Your task to perform on an android device: turn off location history Image 0: 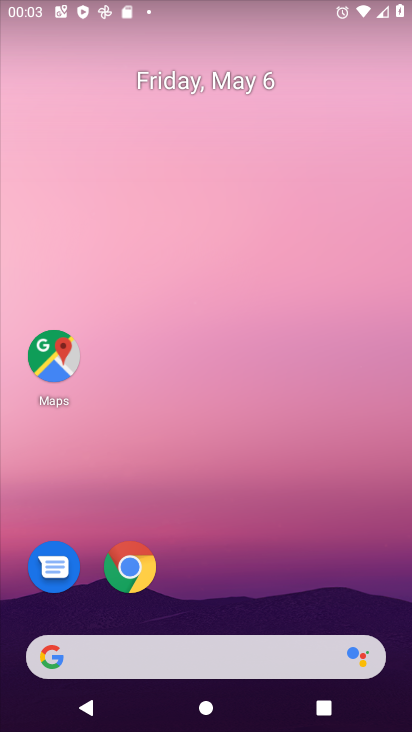
Step 0: drag from (221, 588) to (181, 106)
Your task to perform on an android device: turn off location history Image 1: 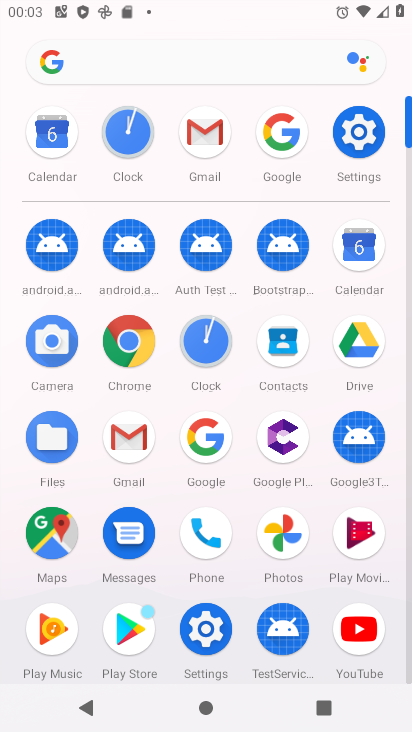
Step 1: click (337, 129)
Your task to perform on an android device: turn off location history Image 2: 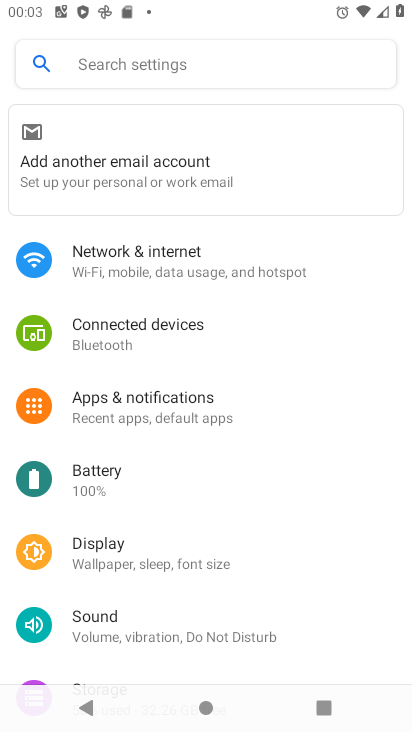
Step 2: drag from (203, 605) to (210, 291)
Your task to perform on an android device: turn off location history Image 3: 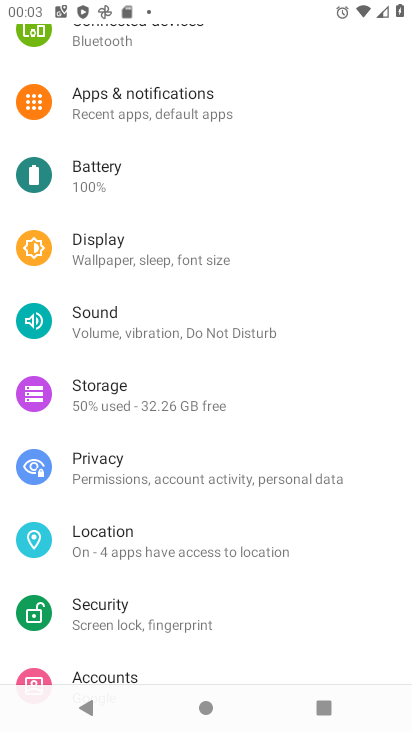
Step 3: click (167, 535)
Your task to perform on an android device: turn off location history Image 4: 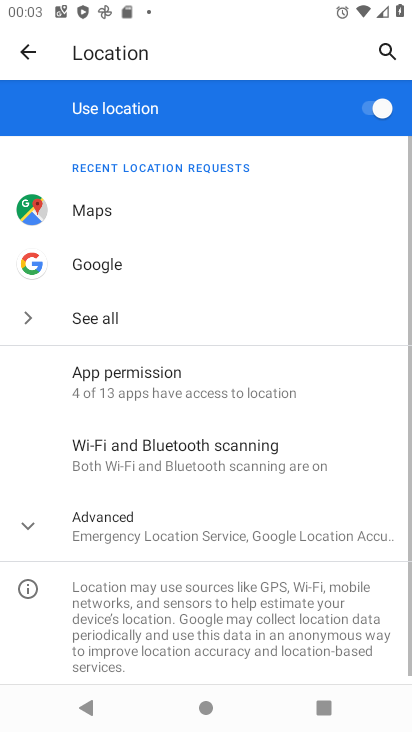
Step 4: click (190, 518)
Your task to perform on an android device: turn off location history Image 5: 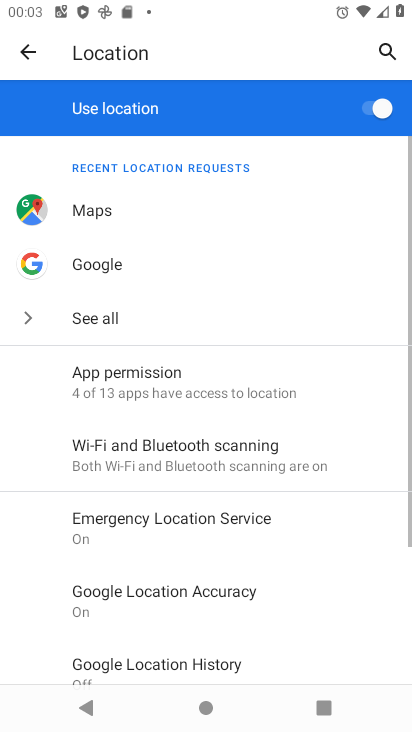
Step 5: drag from (226, 575) to (228, 401)
Your task to perform on an android device: turn off location history Image 6: 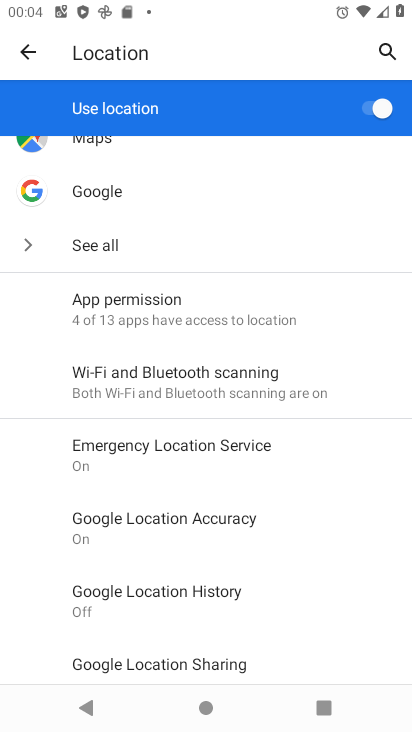
Step 6: click (365, 111)
Your task to perform on an android device: turn off location history Image 7: 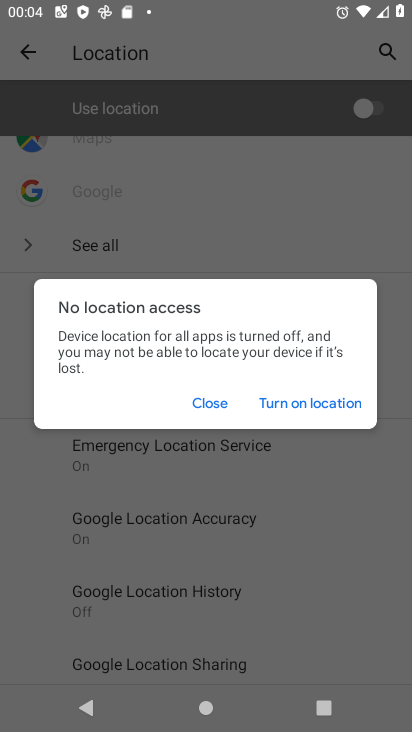
Step 7: task complete